Your task to perform on an android device: turn on location history Image 0: 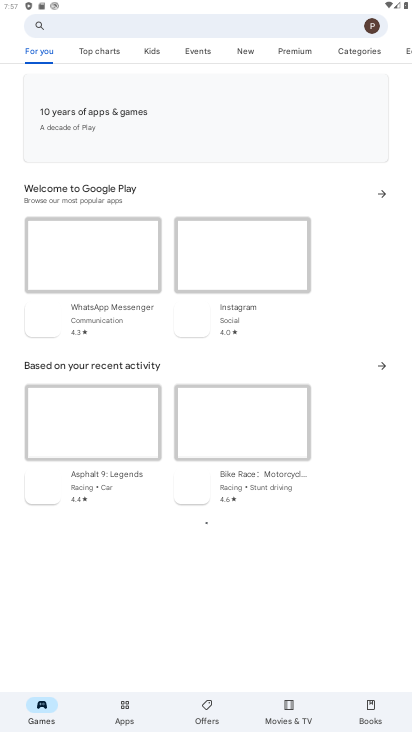
Step 0: press home button
Your task to perform on an android device: turn on location history Image 1: 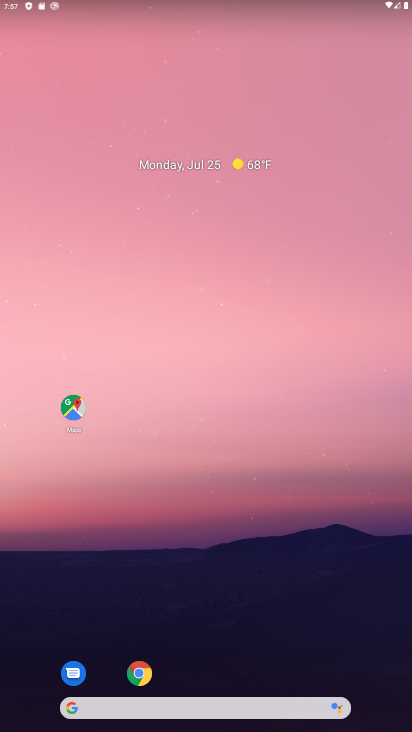
Step 1: drag from (234, 653) to (316, 98)
Your task to perform on an android device: turn on location history Image 2: 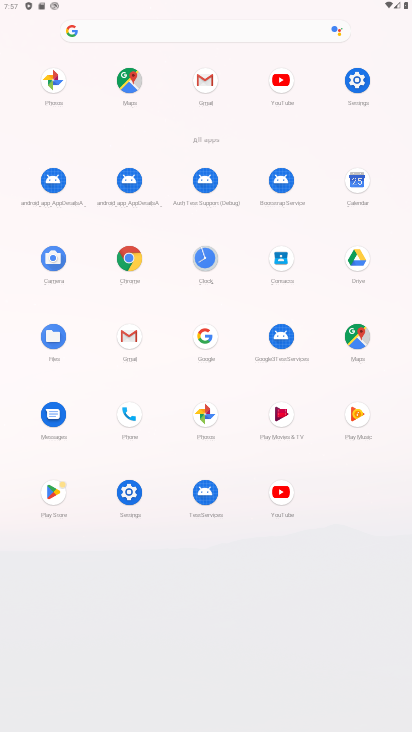
Step 2: click (358, 88)
Your task to perform on an android device: turn on location history Image 3: 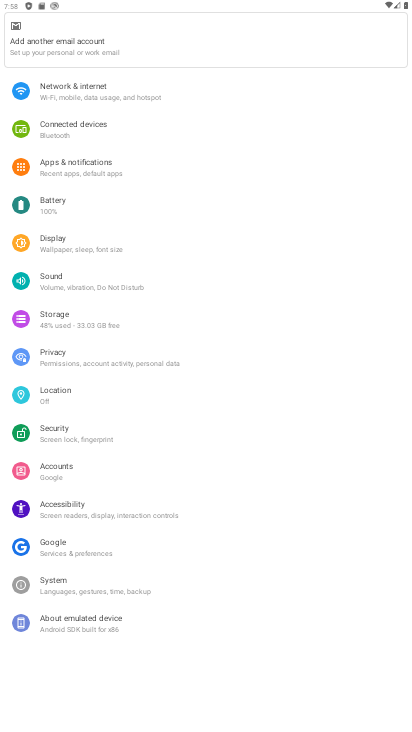
Step 3: click (52, 399)
Your task to perform on an android device: turn on location history Image 4: 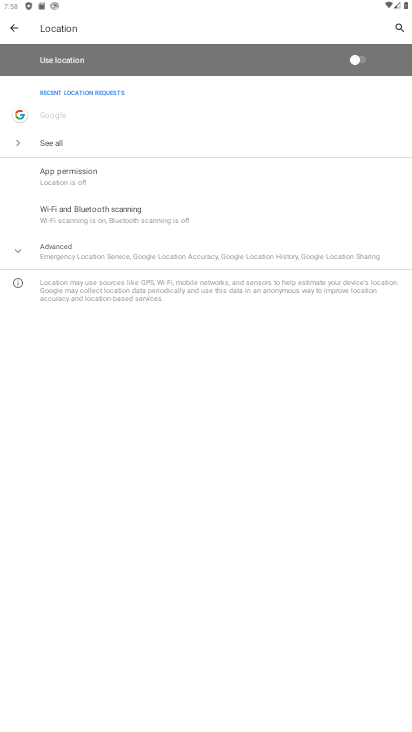
Step 4: click (128, 257)
Your task to perform on an android device: turn on location history Image 5: 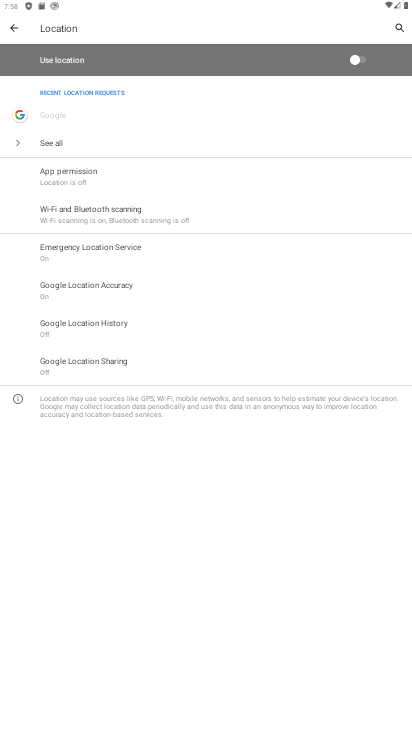
Step 5: click (125, 328)
Your task to perform on an android device: turn on location history Image 6: 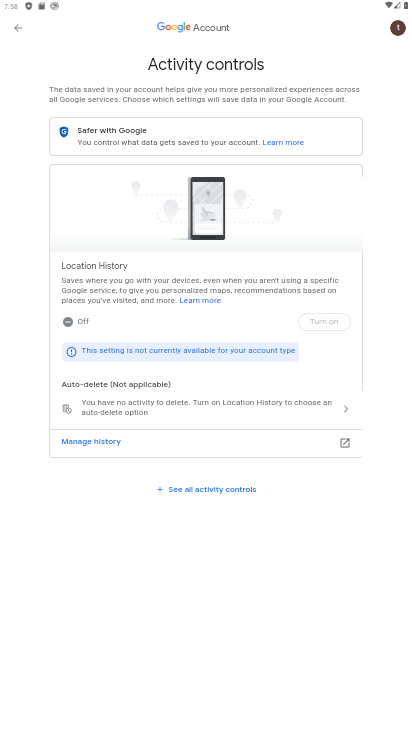
Step 6: task complete